Your task to perform on an android device: What is the recent news? Image 0: 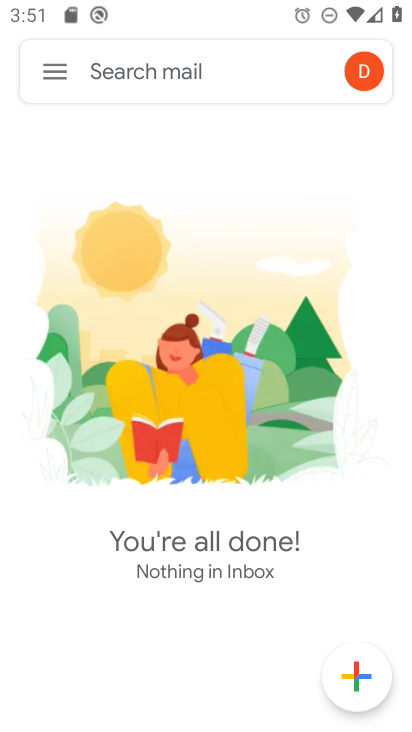
Step 0: press home button
Your task to perform on an android device: What is the recent news? Image 1: 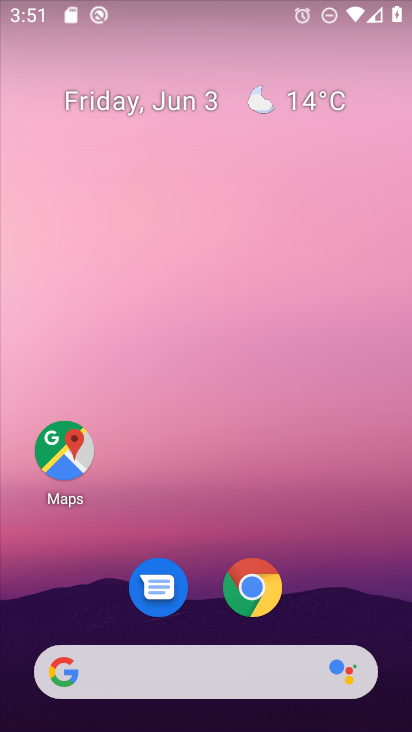
Step 1: task complete